Your task to perform on an android device: add a contact in the contacts app Image 0: 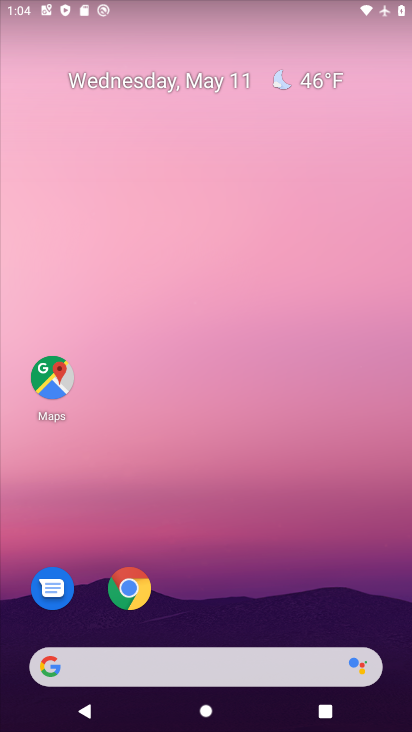
Step 0: drag from (217, 572) to (253, 184)
Your task to perform on an android device: add a contact in the contacts app Image 1: 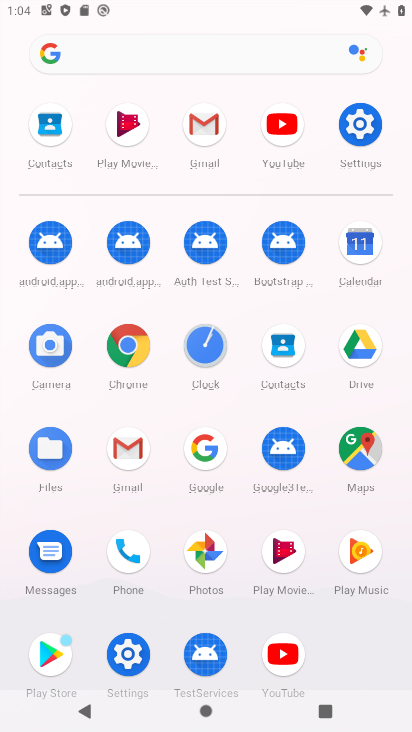
Step 1: click (297, 348)
Your task to perform on an android device: add a contact in the contacts app Image 2: 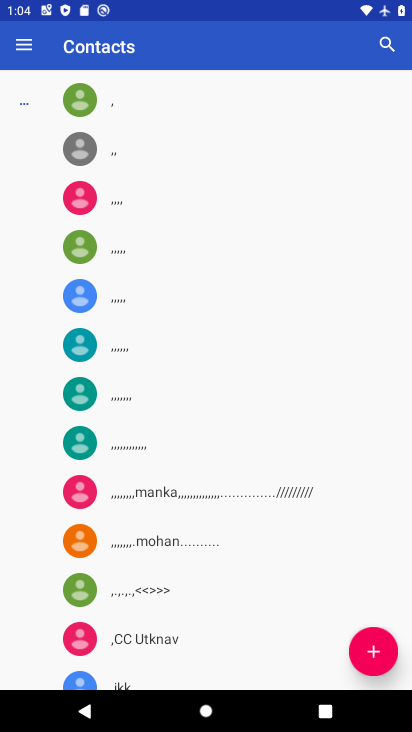
Step 2: click (366, 659)
Your task to perform on an android device: add a contact in the contacts app Image 3: 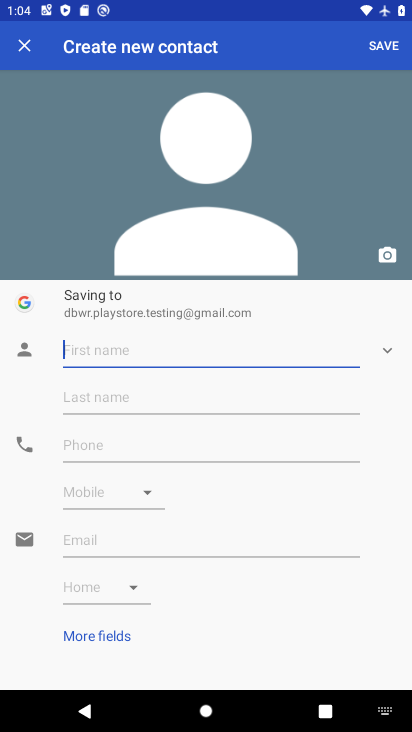
Step 3: click (233, 351)
Your task to perform on an android device: add a contact in the contacts app Image 4: 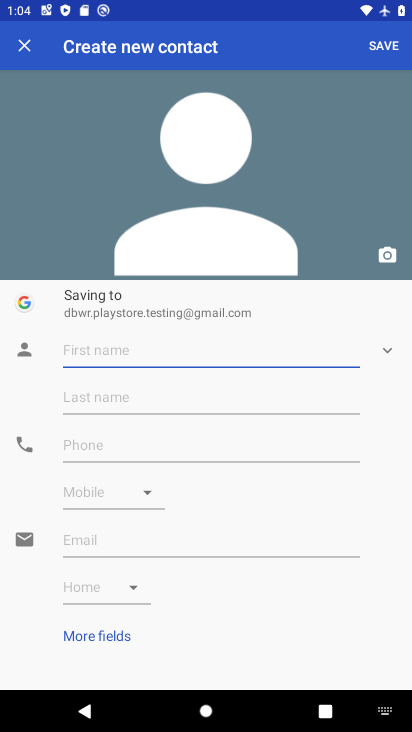
Step 4: type "connection5"
Your task to perform on an android device: add a contact in the contacts app Image 5: 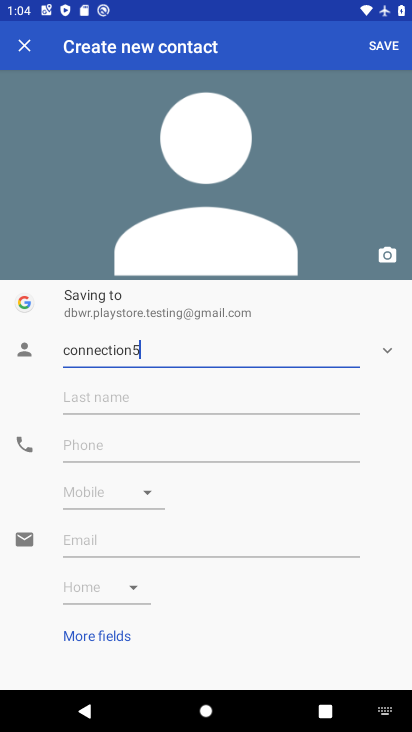
Step 5: click (182, 447)
Your task to perform on an android device: add a contact in the contacts app Image 6: 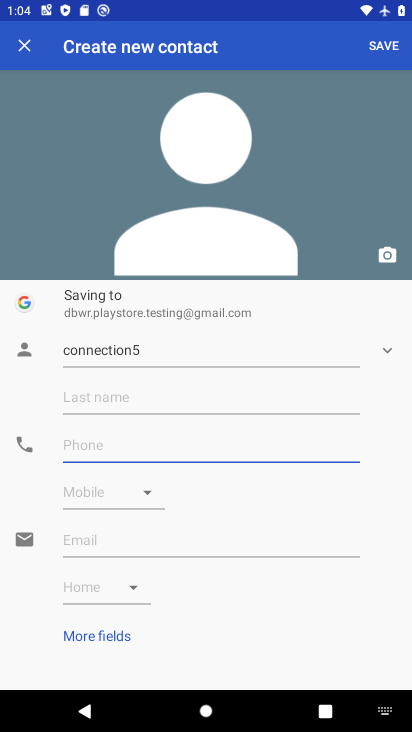
Step 6: type "7685376588"
Your task to perform on an android device: add a contact in the contacts app Image 7: 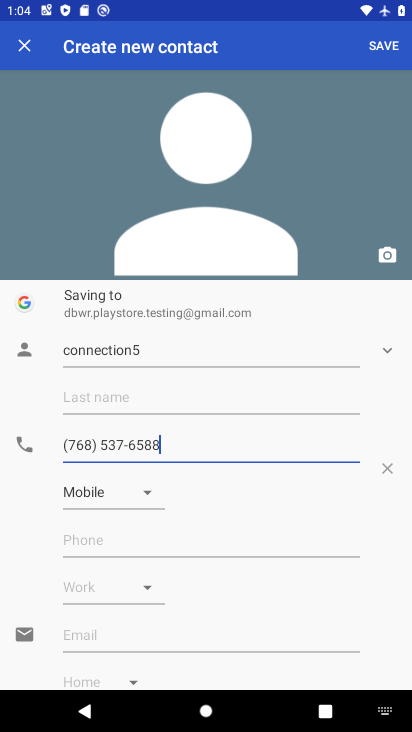
Step 7: click (385, 42)
Your task to perform on an android device: add a contact in the contacts app Image 8: 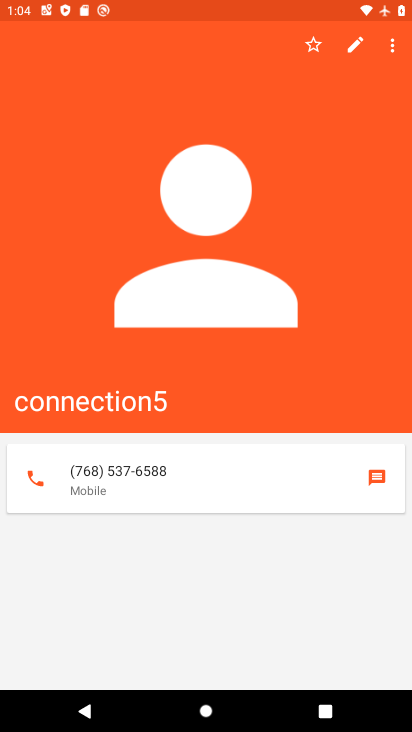
Step 8: task complete